Your task to perform on an android device: Go to CNN.com Image 0: 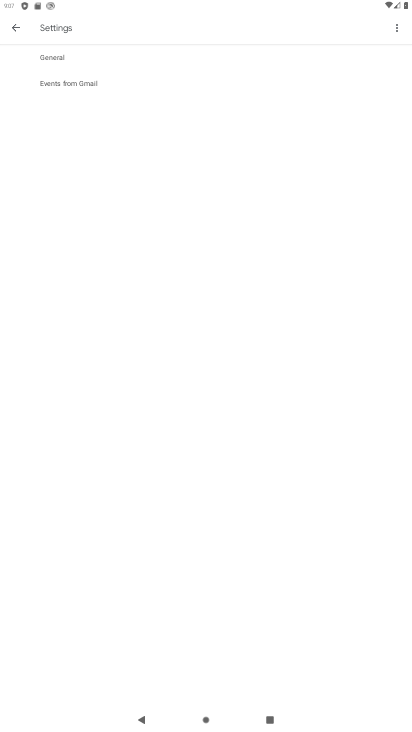
Step 0: press home button
Your task to perform on an android device: Go to CNN.com Image 1: 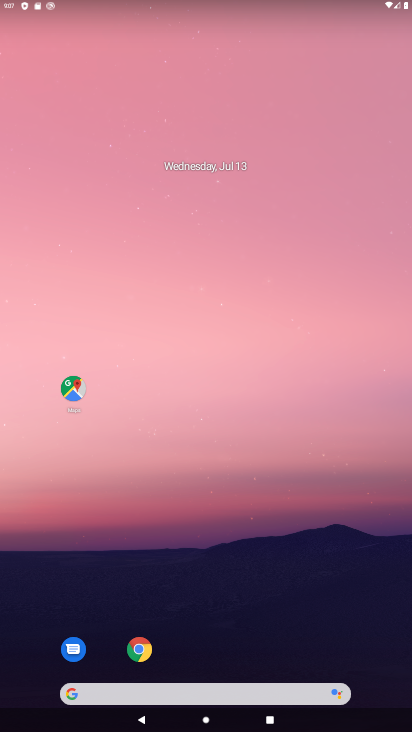
Step 1: click (142, 642)
Your task to perform on an android device: Go to CNN.com Image 2: 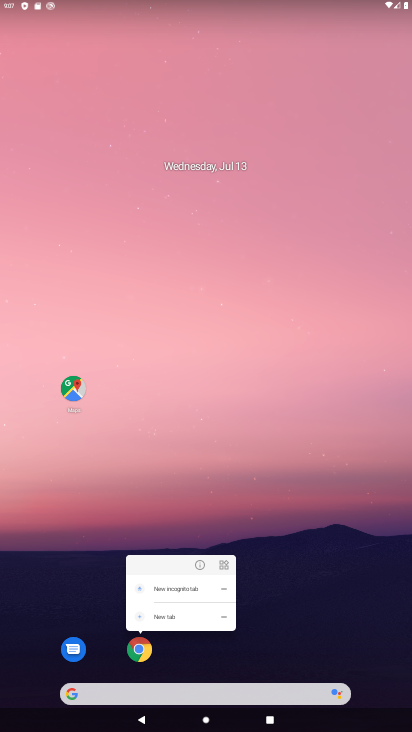
Step 2: click (141, 654)
Your task to perform on an android device: Go to CNN.com Image 3: 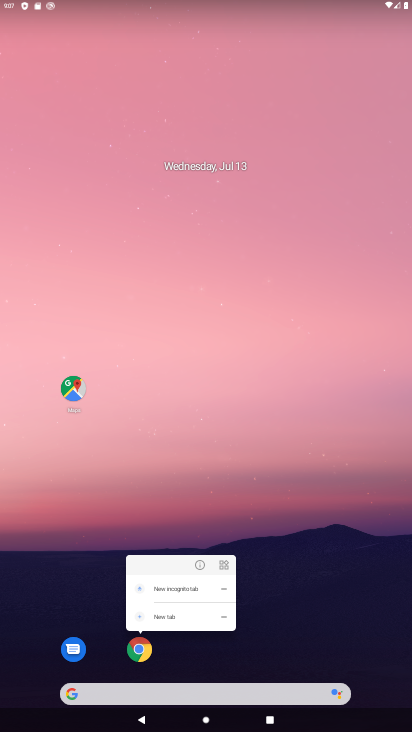
Step 3: click (143, 654)
Your task to perform on an android device: Go to CNN.com Image 4: 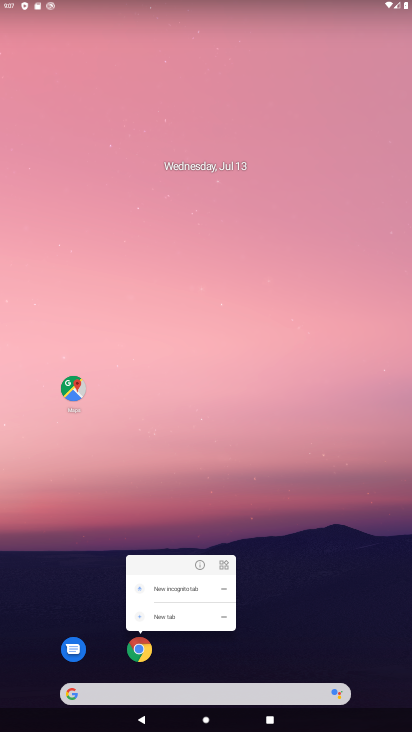
Step 4: click (130, 654)
Your task to perform on an android device: Go to CNN.com Image 5: 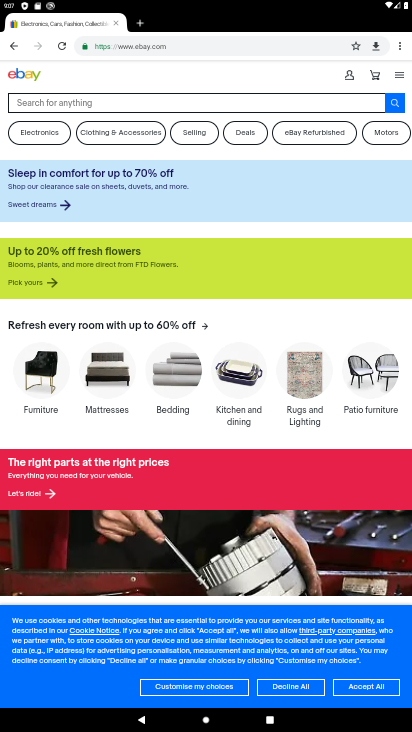
Step 5: click (396, 41)
Your task to perform on an android device: Go to CNN.com Image 6: 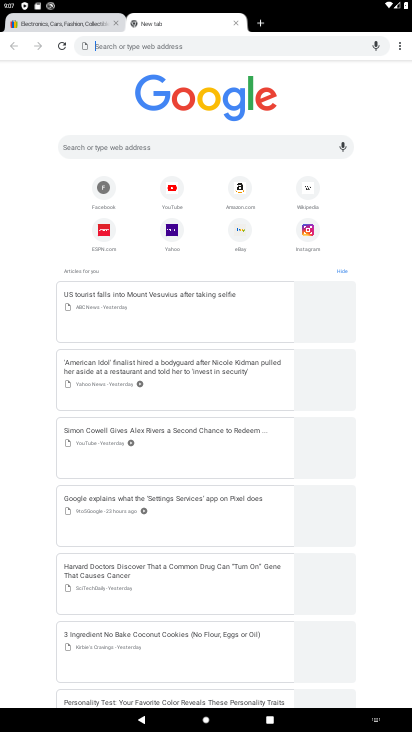
Step 6: click (155, 146)
Your task to perform on an android device: Go to CNN.com Image 7: 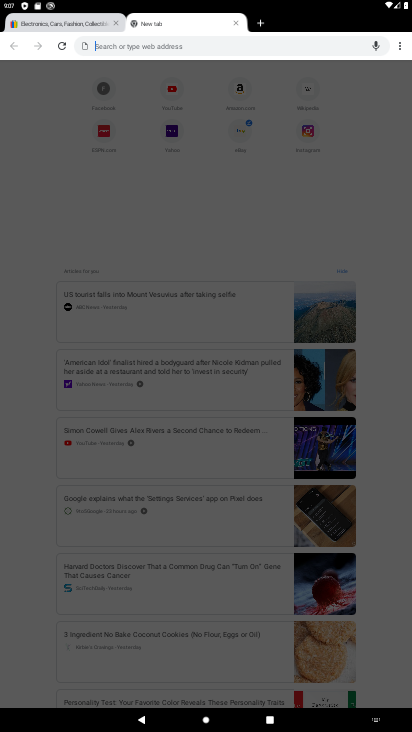
Step 7: type "CNN.com"
Your task to perform on an android device: Go to CNN.com Image 8: 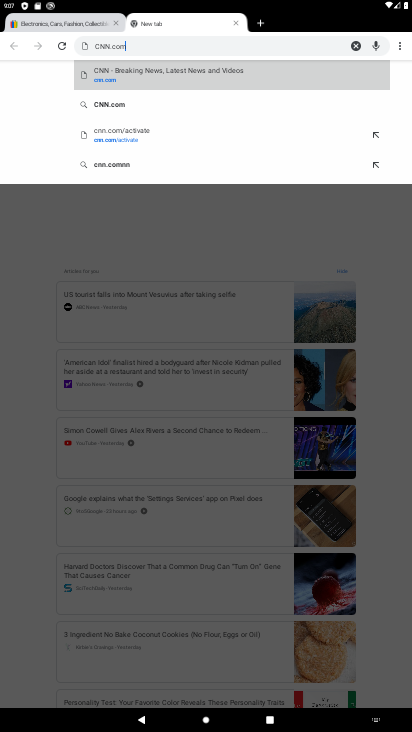
Step 8: click (171, 71)
Your task to perform on an android device: Go to CNN.com Image 9: 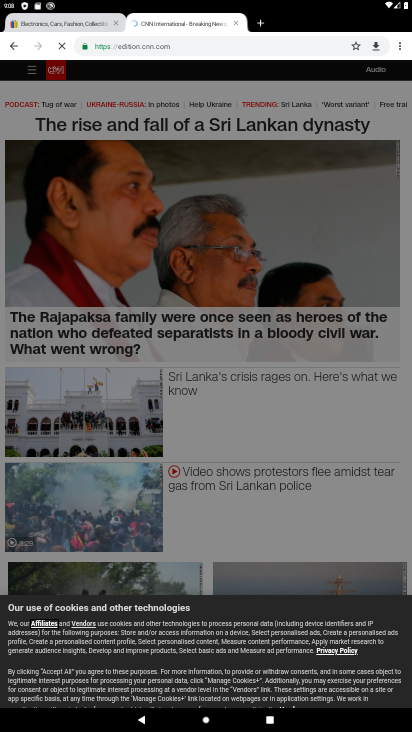
Step 9: task complete